Your task to perform on an android device: turn off location history Image 0: 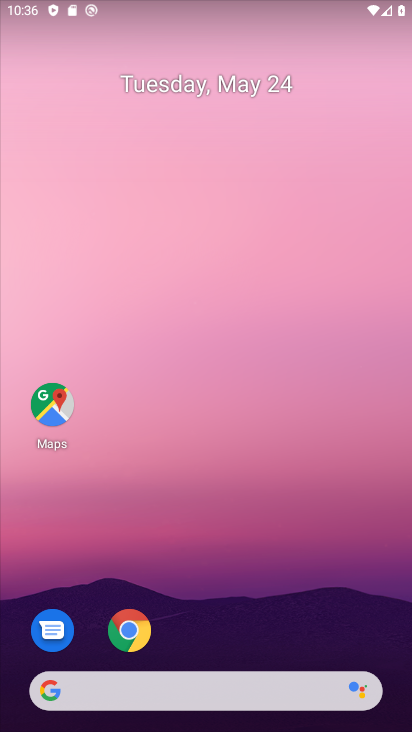
Step 0: drag from (216, 672) to (347, 41)
Your task to perform on an android device: turn off location history Image 1: 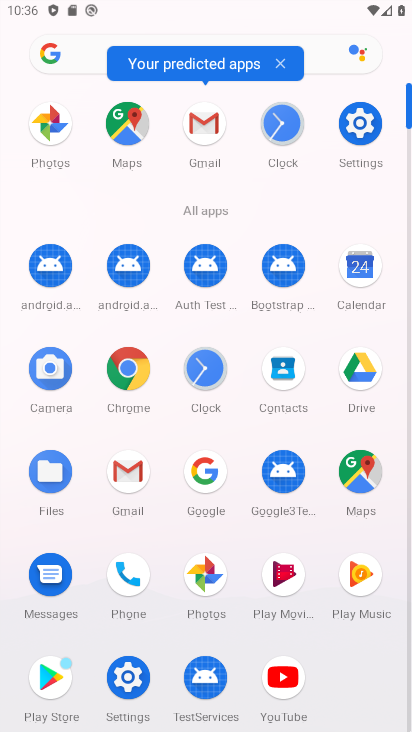
Step 1: click (146, 683)
Your task to perform on an android device: turn off location history Image 2: 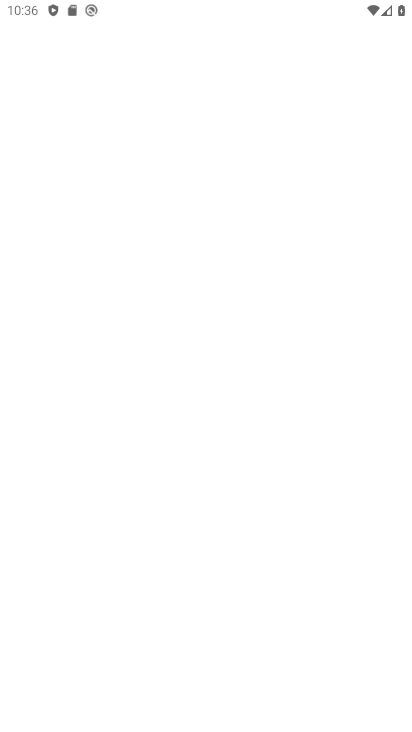
Step 2: click (142, 687)
Your task to perform on an android device: turn off location history Image 3: 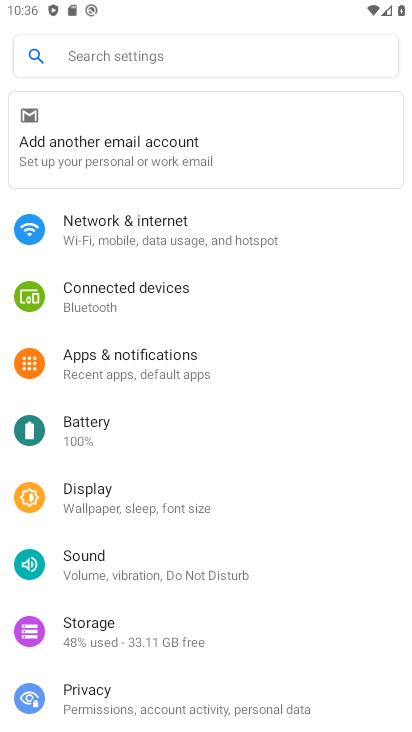
Step 3: drag from (156, 670) to (265, 317)
Your task to perform on an android device: turn off location history Image 4: 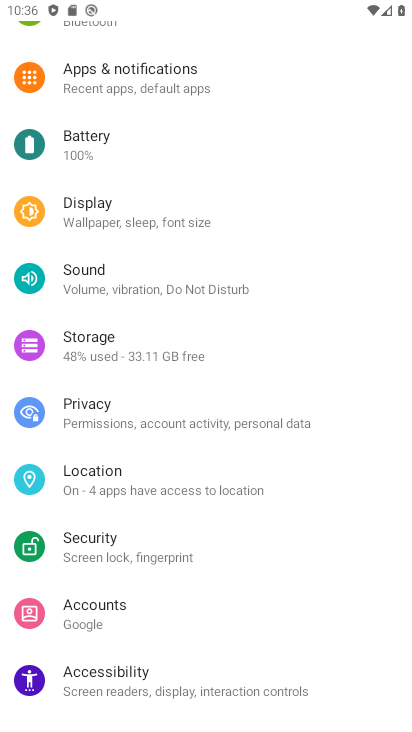
Step 4: click (164, 481)
Your task to perform on an android device: turn off location history Image 5: 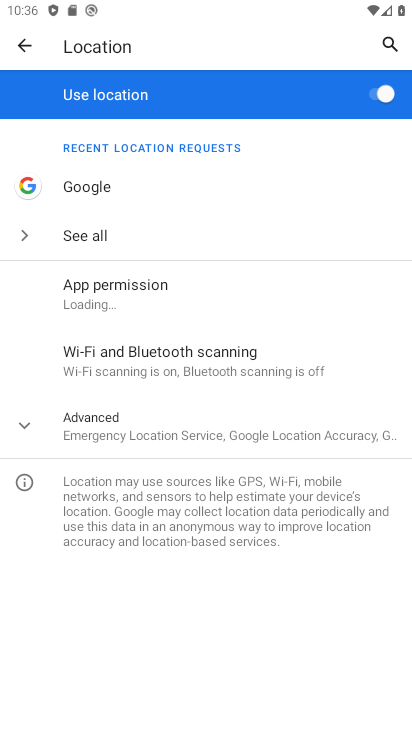
Step 5: click (205, 430)
Your task to perform on an android device: turn off location history Image 6: 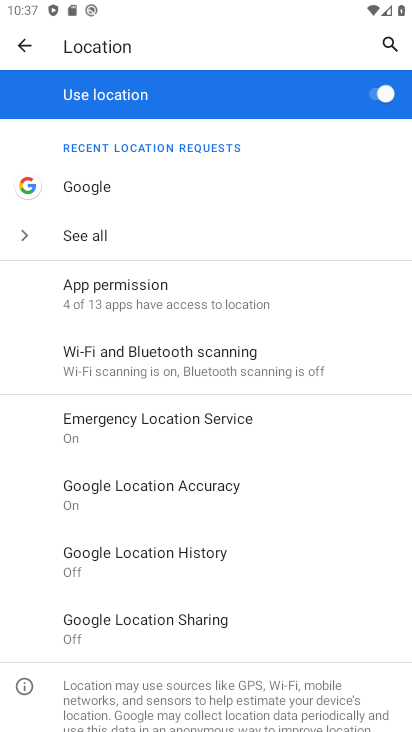
Step 6: click (238, 558)
Your task to perform on an android device: turn off location history Image 7: 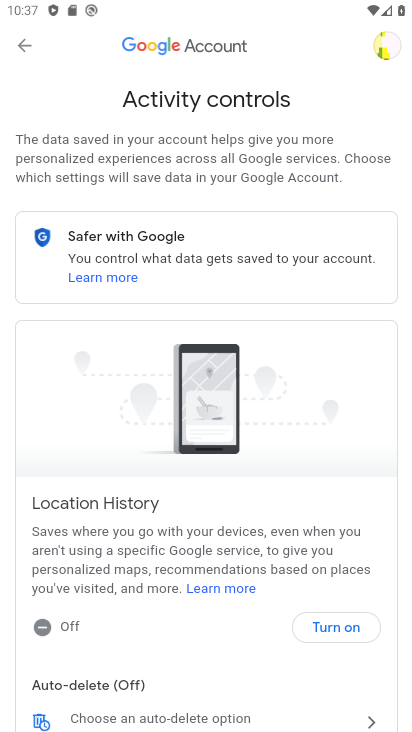
Step 7: task complete